Your task to perform on an android device: open the mobile data screen to see how much data has been used Image 0: 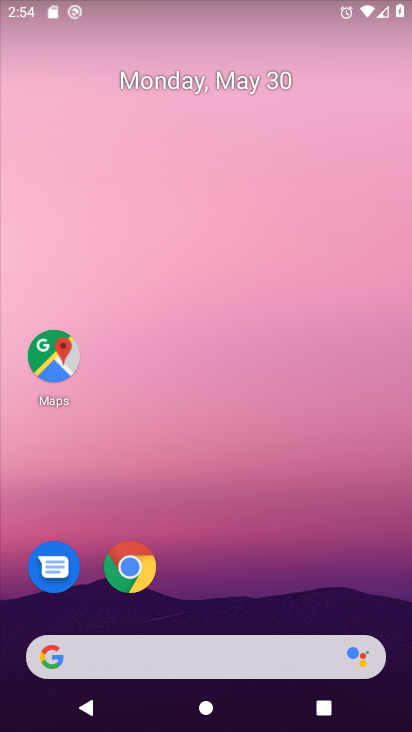
Step 0: drag from (209, 581) to (218, 288)
Your task to perform on an android device: open the mobile data screen to see how much data has been used Image 1: 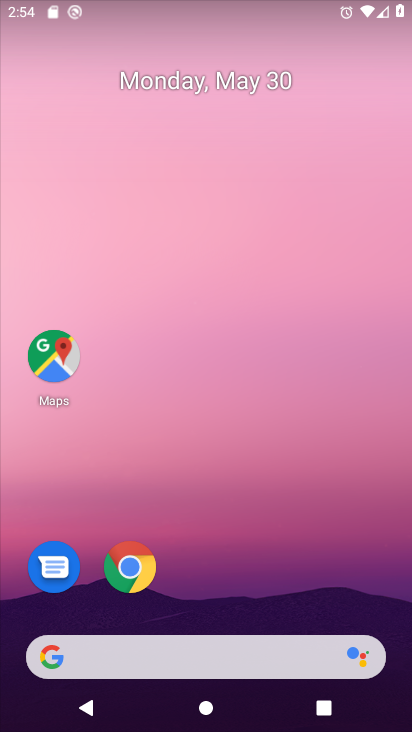
Step 1: drag from (201, 592) to (236, 205)
Your task to perform on an android device: open the mobile data screen to see how much data has been used Image 2: 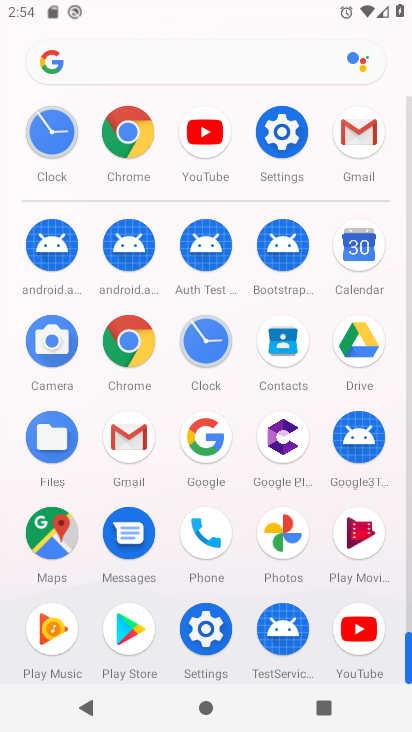
Step 2: click (205, 640)
Your task to perform on an android device: open the mobile data screen to see how much data has been used Image 3: 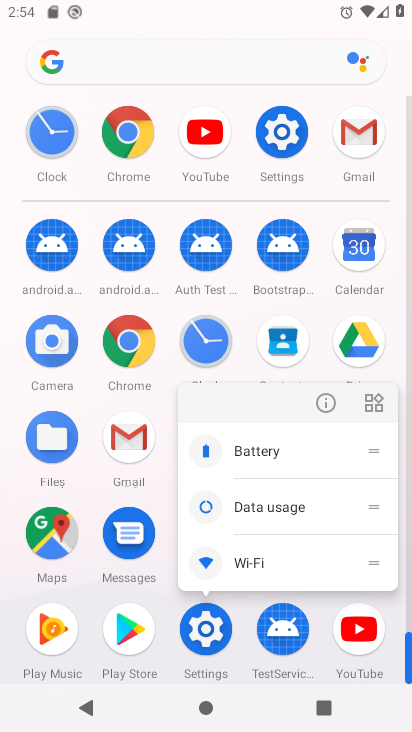
Step 3: click (208, 653)
Your task to perform on an android device: open the mobile data screen to see how much data has been used Image 4: 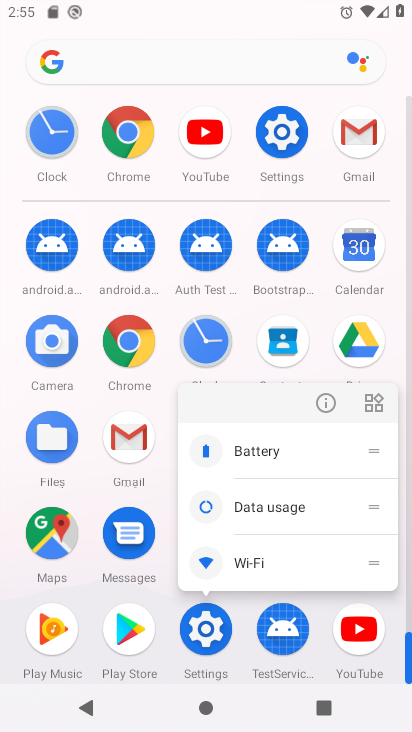
Step 4: click (204, 660)
Your task to perform on an android device: open the mobile data screen to see how much data has been used Image 5: 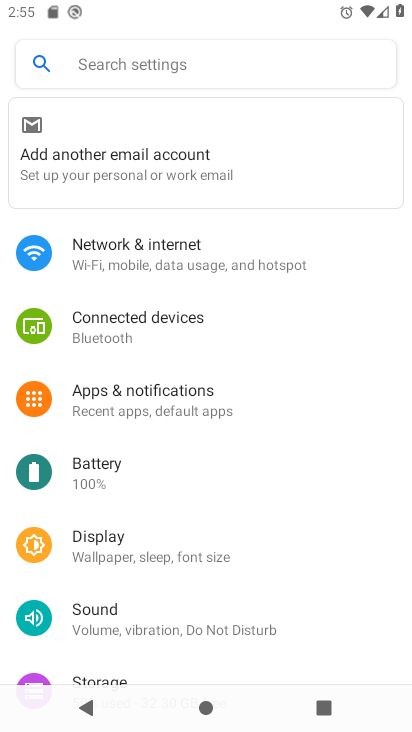
Step 5: click (181, 273)
Your task to perform on an android device: open the mobile data screen to see how much data has been used Image 6: 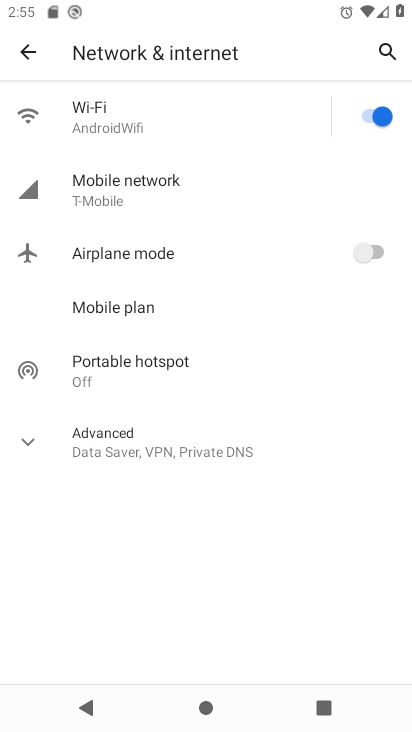
Step 6: click (127, 205)
Your task to perform on an android device: open the mobile data screen to see how much data has been used Image 7: 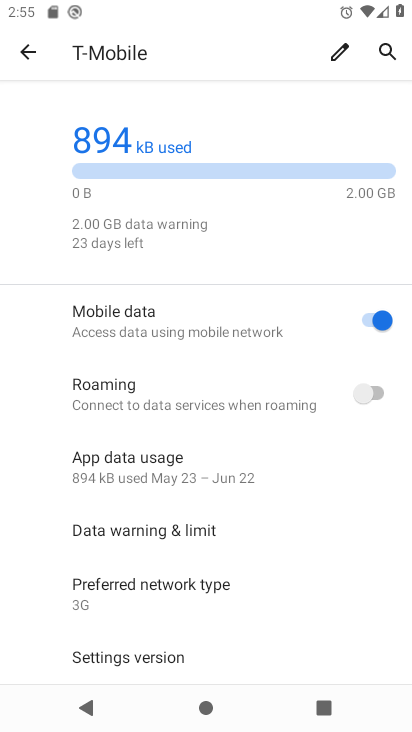
Step 7: drag from (194, 479) to (194, 389)
Your task to perform on an android device: open the mobile data screen to see how much data has been used Image 8: 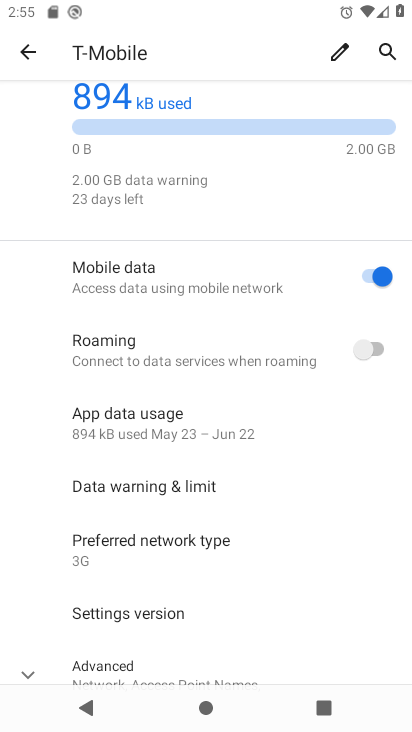
Step 8: click (157, 429)
Your task to perform on an android device: open the mobile data screen to see how much data has been used Image 9: 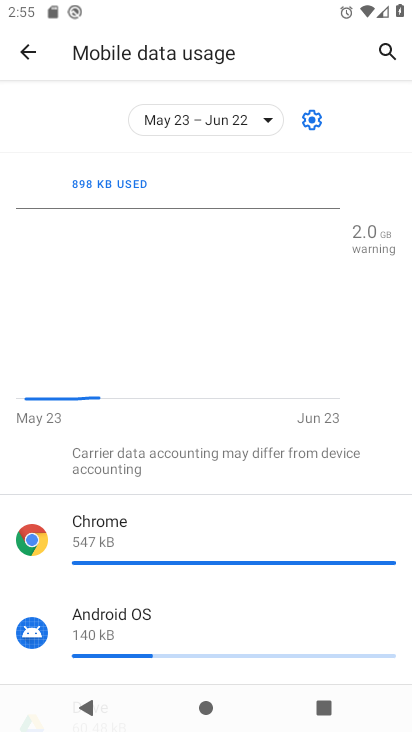
Step 9: task complete